Your task to perform on an android device: toggle priority inbox in the gmail app Image 0: 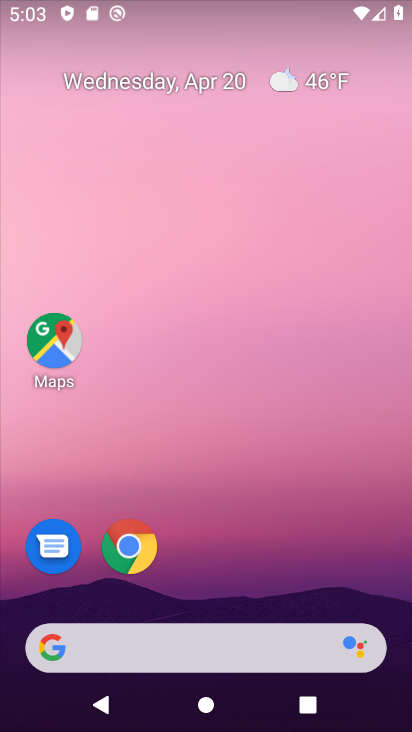
Step 0: drag from (322, 522) to (338, 52)
Your task to perform on an android device: toggle priority inbox in the gmail app Image 1: 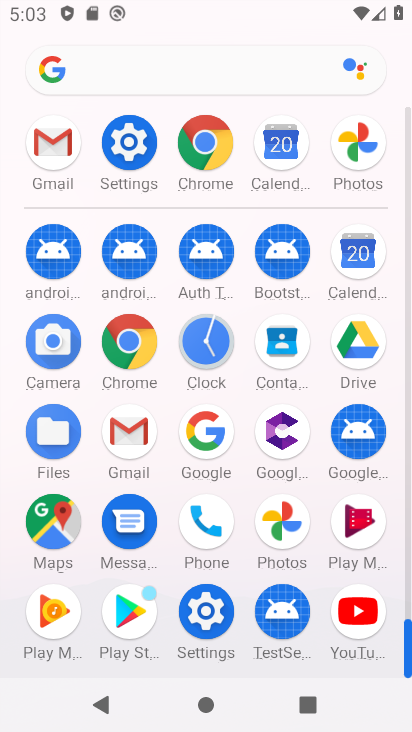
Step 1: click (0, 157)
Your task to perform on an android device: toggle priority inbox in the gmail app Image 2: 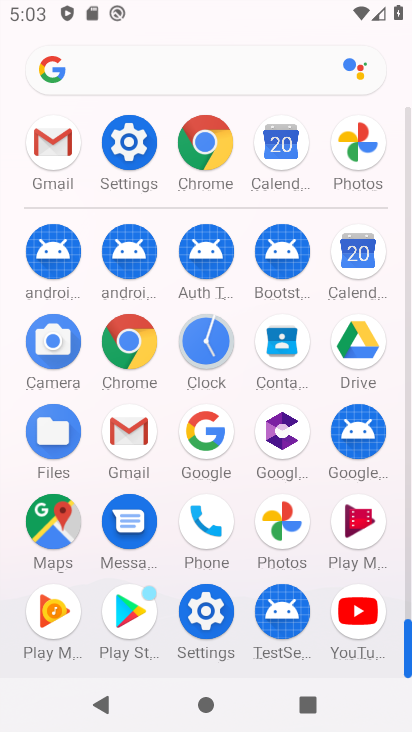
Step 2: click (27, 143)
Your task to perform on an android device: toggle priority inbox in the gmail app Image 3: 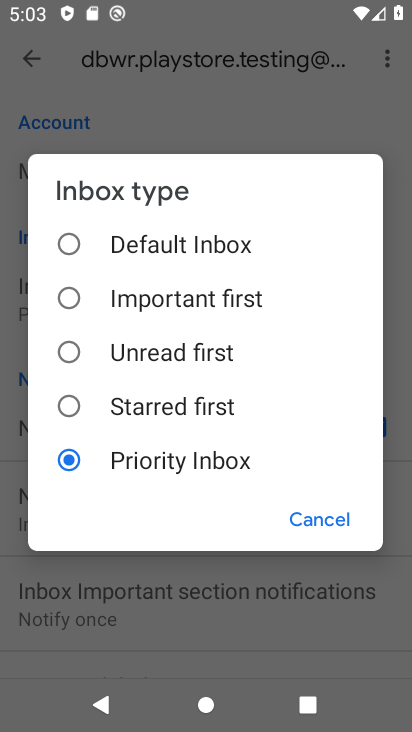
Step 3: click (69, 245)
Your task to perform on an android device: toggle priority inbox in the gmail app Image 4: 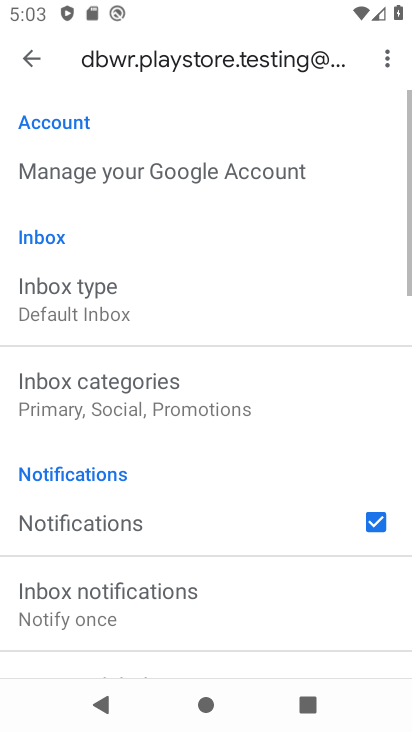
Step 4: task complete